Your task to perform on an android device: Search for sushi restaurants on Maps Image 0: 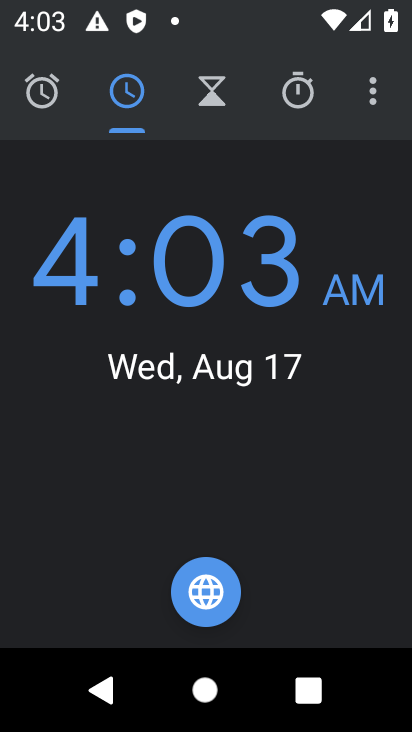
Step 0: press home button
Your task to perform on an android device: Search for sushi restaurants on Maps Image 1: 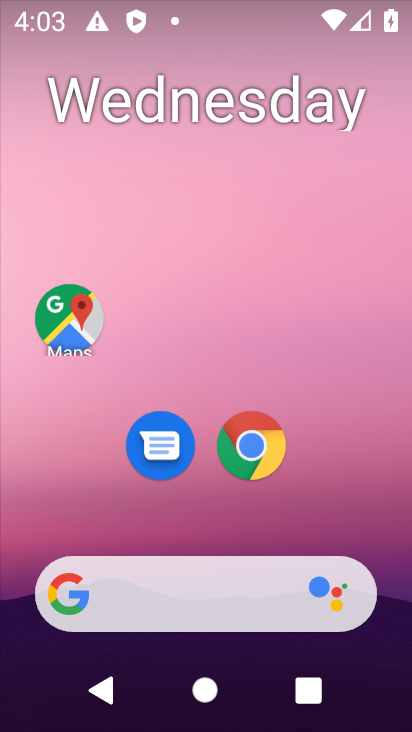
Step 1: drag from (342, 519) to (278, 0)
Your task to perform on an android device: Search for sushi restaurants on Maps Image 2: 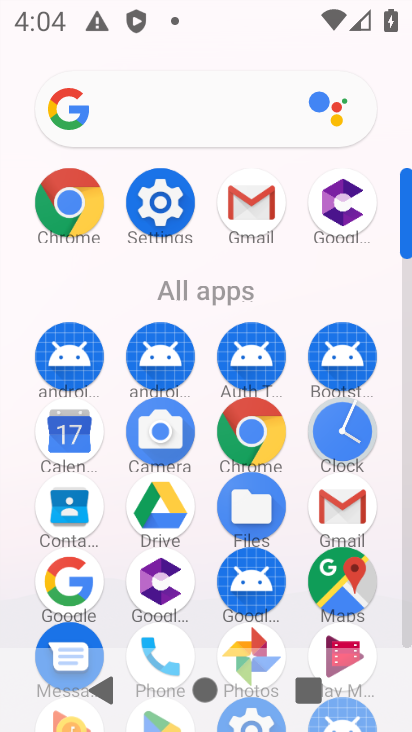
Step 2: click (345, 572)
Your task to perform on an android device: Search for sushi restaurants on Maps Image 3: 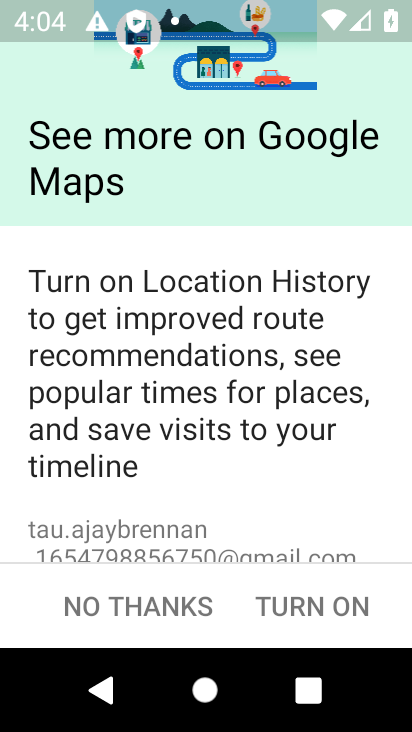
Step 3: click (119, 613)
Your task to perform on an android device: Search for sushi restaurants on Maps Image 4: 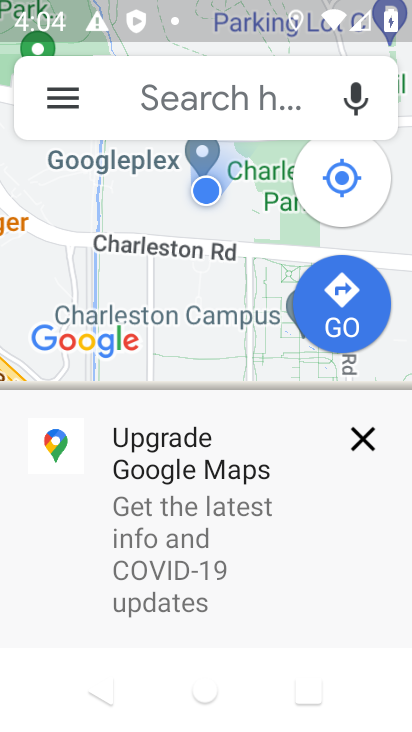
Step 4: click (173, 88)
Your task to perform on an android device: Search for sushi restaurants on Maps Image 5: 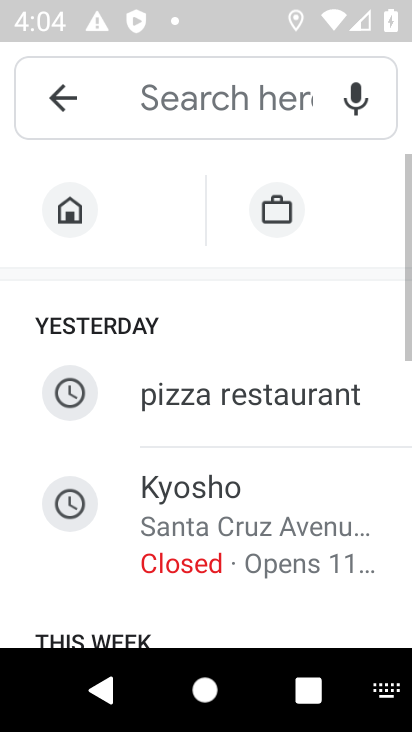
Step 5: click (192, 103)
Your task to perform on an android device: Search for sushi restaurants on Maps Image 6: 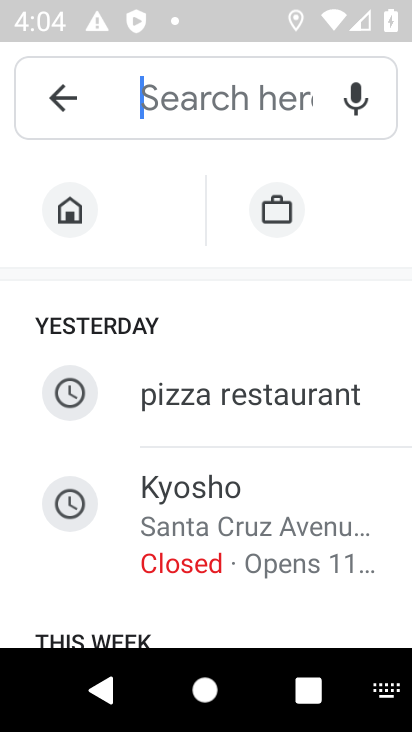
Step 6: type "sushi restaurants"
Your task to perform on an android device: Search for sushi restaurants on Maps Image 7: 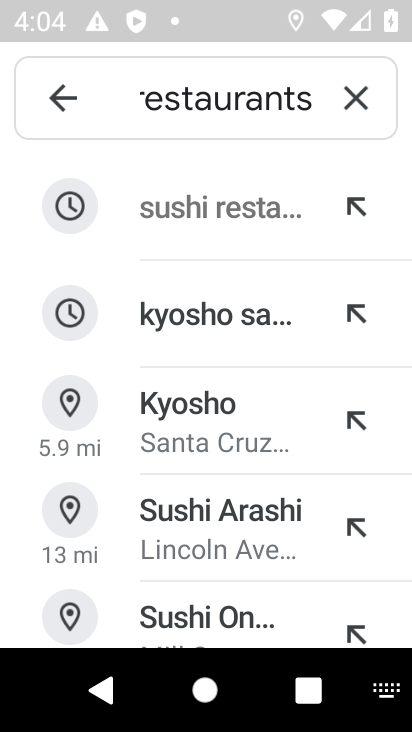
Step 7: press enter
Your task to perform on an android device: Search for sushi restaurants on Maps Image 8: 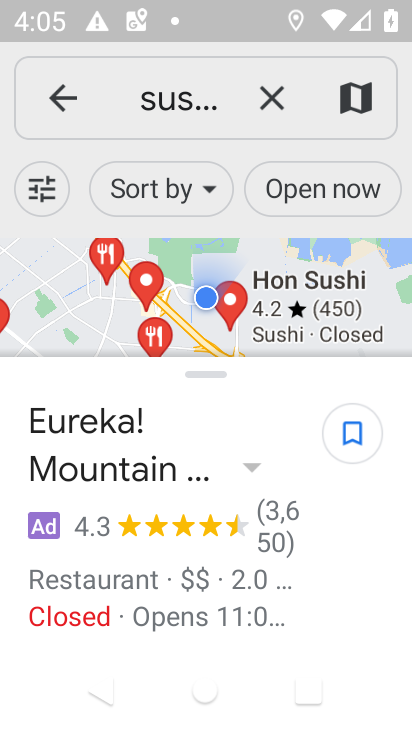
Step 8: task complete